Your task to perform on an android device: find photos in the google photos app Image 0: 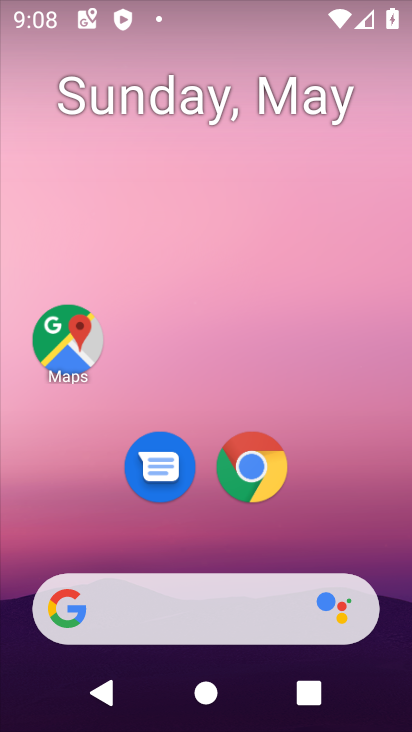
Step 0: drag from (355, 520) to (299, 2)
Your task to perform on an android device: find photos in the google photos app Image 1: 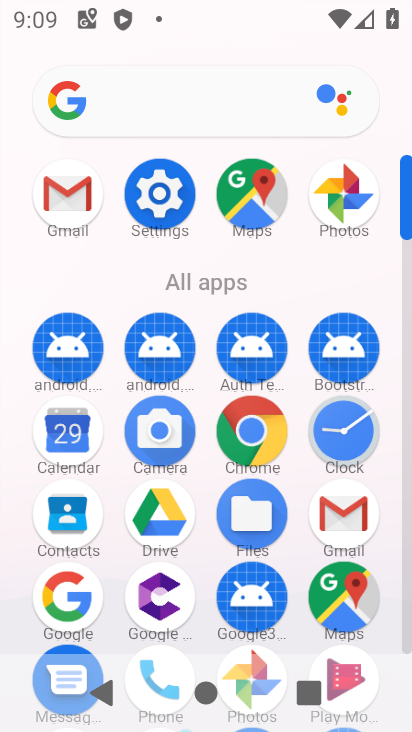
Step 1: click (348, 208)
Your task to perform on an android device: find photos in the google photos app Image 2: 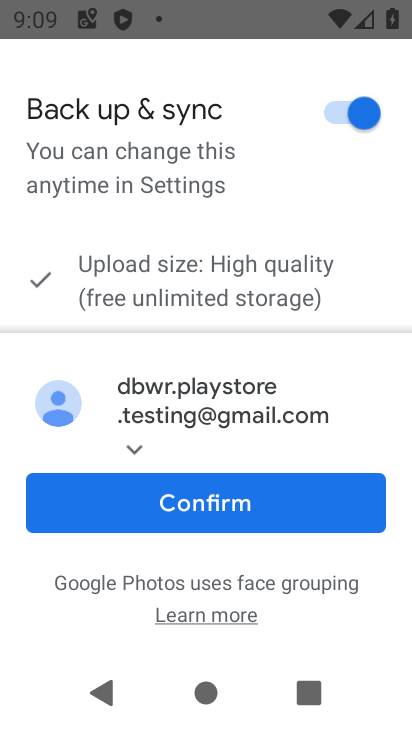
Step 2: click (328, 481)
Your task to perform on an android device: find photos in the google photos app Image 3: 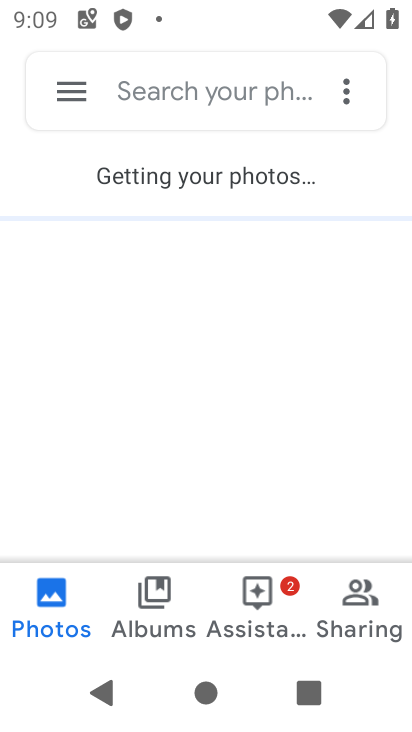
Step 3: task complete